Your task to perform on an android device: Search for usb-b on costco, select the first entry, add it to the cart, then select checkout. Image 0: 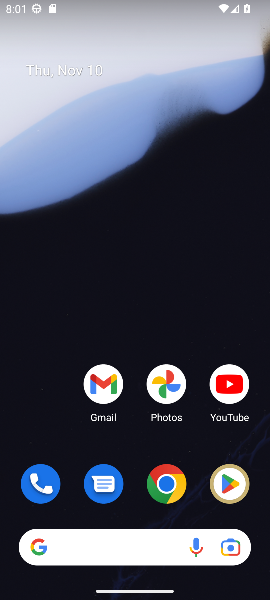
Step 0: click (168, 484)
Your task to perform on an android device: Search for usb-b on costco, select the first entry, add it to the cart, then select checkout. Image 1: 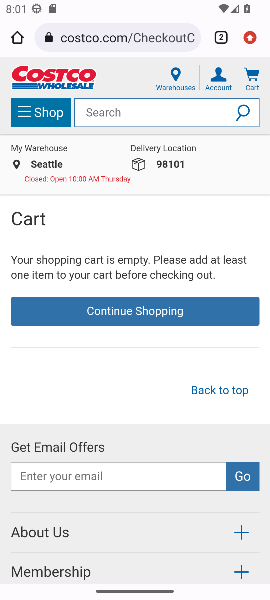
Step 1: click (102, 113)
Your task to perform on an android device: Search for usb-b on costco, select the first entry, add it to the cart, then select checkout. Image 2: 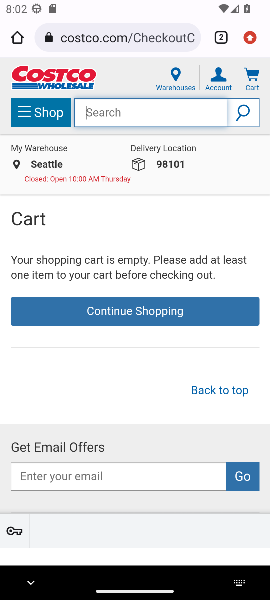
Step 2: type "usb-b"
Your task to perform on an android device: Search for usb-b on costco, select the first entry, add it to the cart, then select checkout. Image 3: 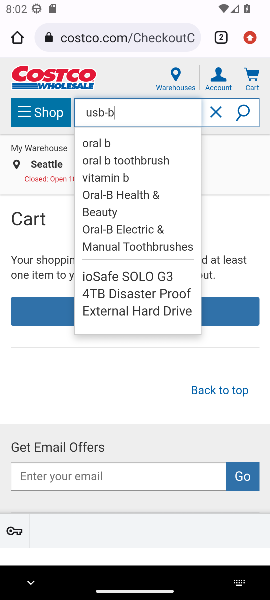
Step 3: click (241, 111)
Your task to perform on an android device: Search for usb-b on costco, select the first entry, add it to the cart, then select checkout. Image 4: 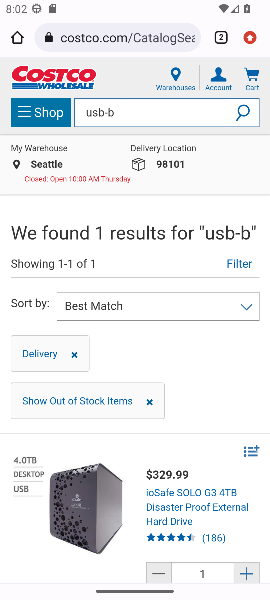
Step 4: task complete